Your task to perform on an android device: toggle translation in the chrome app Image 0: 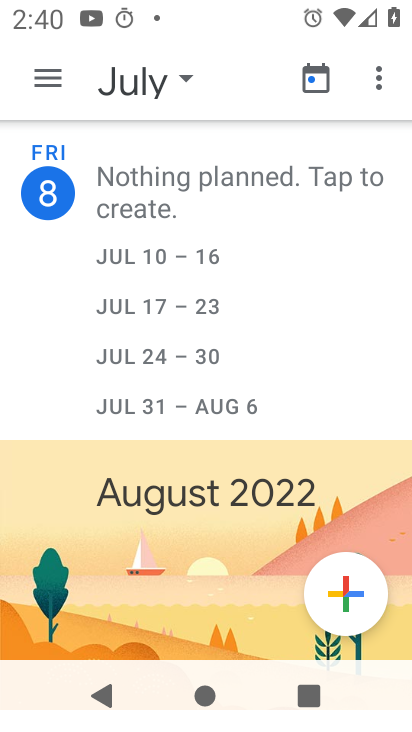
Step 0: press home button
Your task to perform on an android device: toggle translation in the chrome app Image 1: 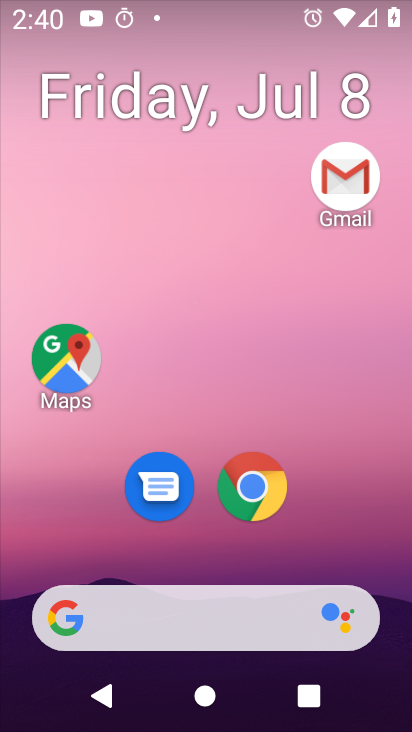
Step 1: drag from (346, 525) to (362, 140)
Your task to perform on an android device: toggle translation in the chrome app Image 2: 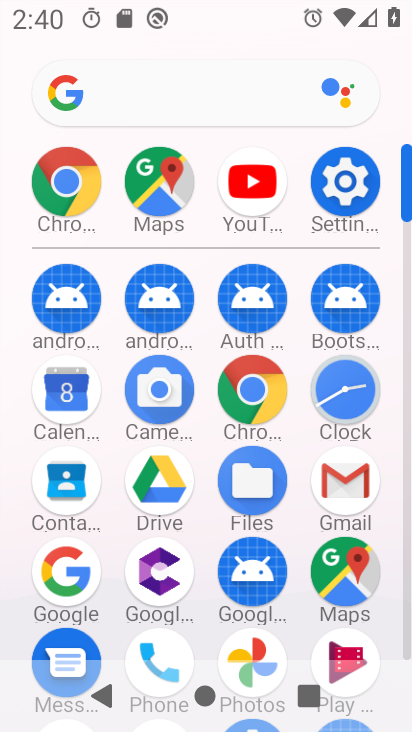
Step 2: click (267, 400)
Your task to perform on an android device: toggle translation in the chrome app Image 3: 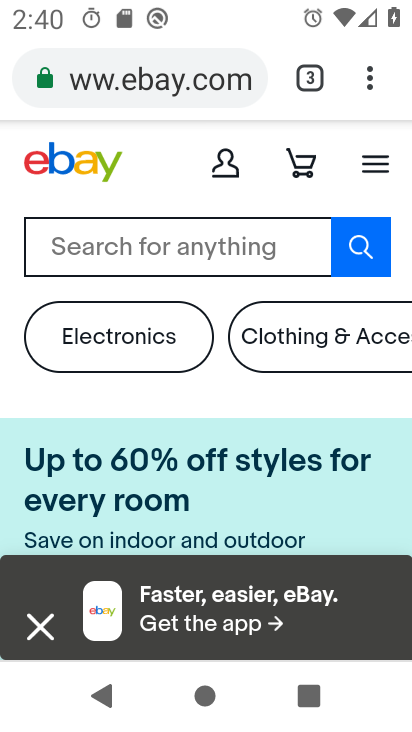
Step 3: click (369, 76)
Your task to perform on an android device: toggle translation in the chrome app Image 4: 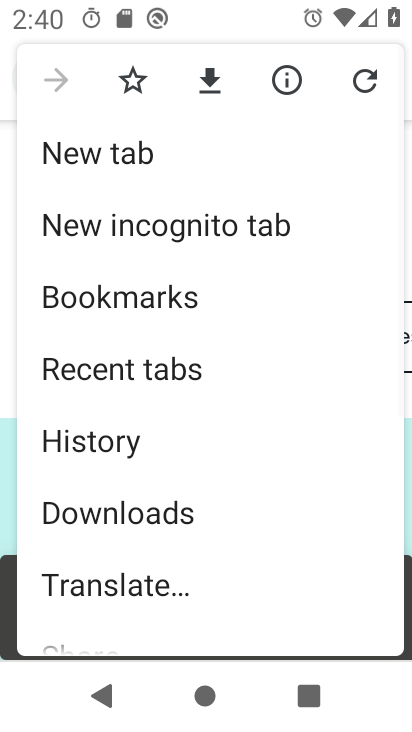
Step 4: drag from (326, 445) to (340, 301)
Your task to perform on an android device: toggle translation in the chrome app Image 5: 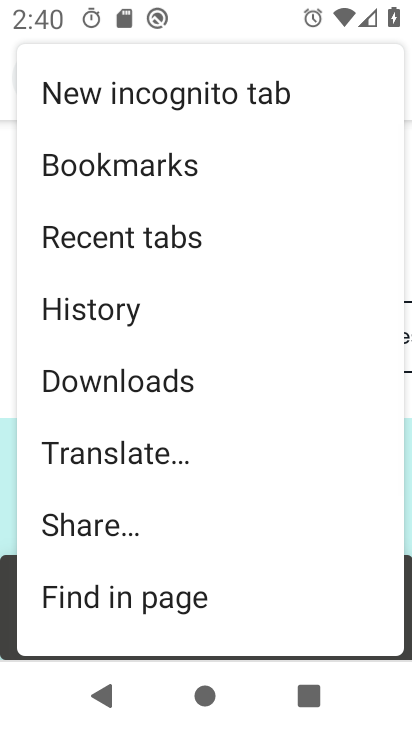
Step 5: drag from (327, 482) to (327, 338)
Your task to perform on an android device: toggle translation in the chrome app Image 6: 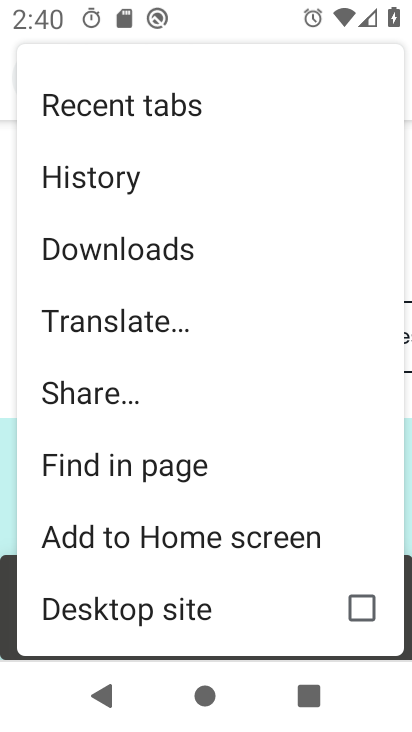
Step 6: drag from (308, 443) to (323, 275)
Your task to perform on an android device: toggle translation in the chrome app Image 7: 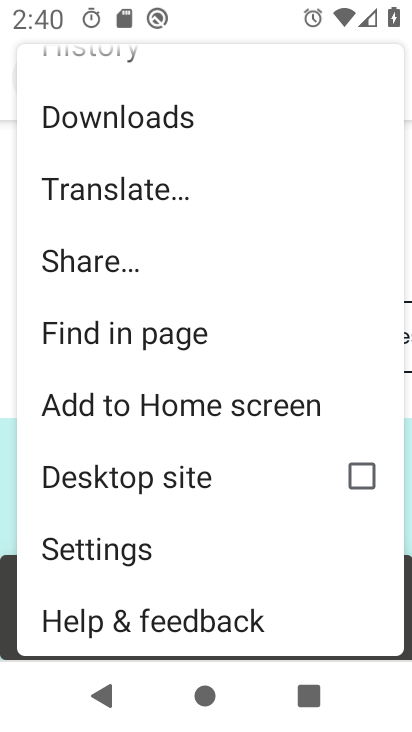
Step 7: drag from (285, 482) to (289, 304)
Your task to perform on an android device: toggle translation in the chrome app Image 8: 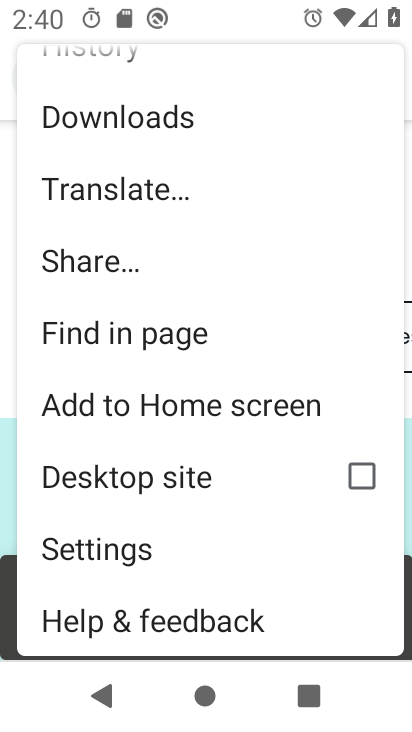
Step 8: click (161, 542)
Your task to perform on an android device: toggle translation in the chrome app Image 9: 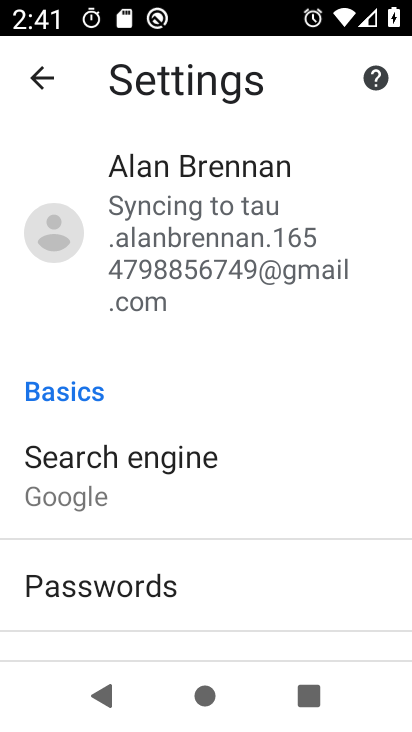
Step 9: drag from (303, 538) to (319, 398)
Your task to perform on an android device: toggle translation in the chrome app Image 10: 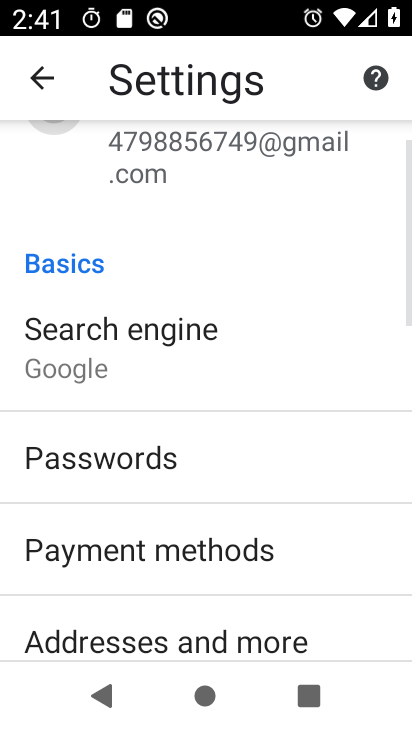
Step 10: drag from (353, 576) to (369, 430)
Your task to perform on an android device: toggle translation in the chrome app Image 11: 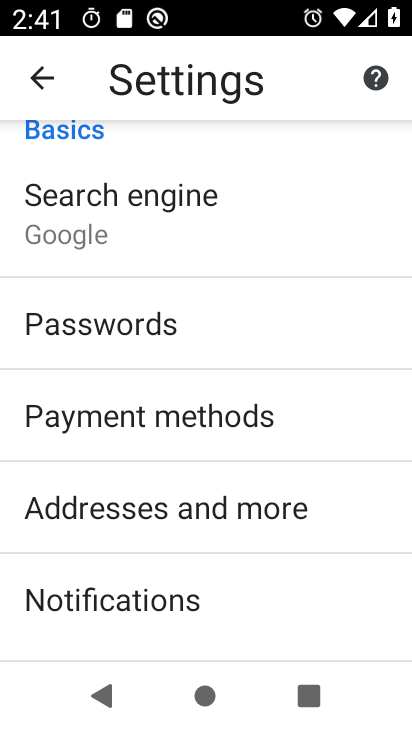
Step 11: drag from (358, 563) to (359, 429)
Your task to perform on an android device: toggle translation in the chrome app Image 12: 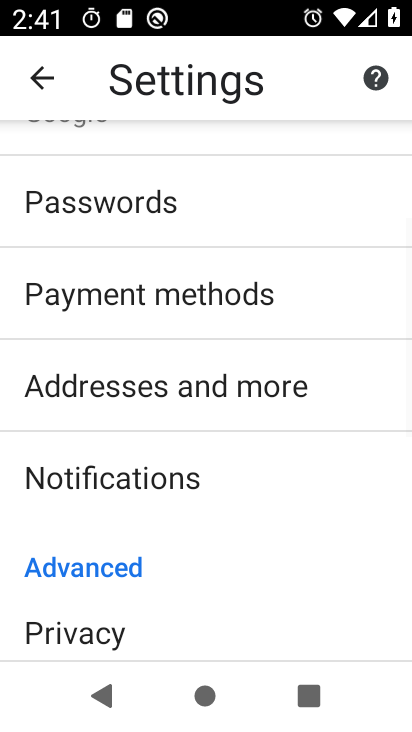
Step 12: drag from (334, 554) to (360, 409)
Your task to perform on an android device: toggle translation in the chrome app Image 13: 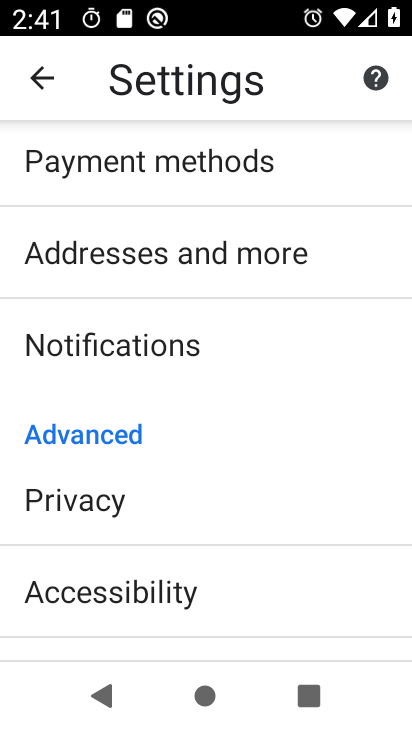
Step 13: drag from (328, 571) to (325, 420)
Your task to perform on an android device: toggle translation in the chrome app Image 14: 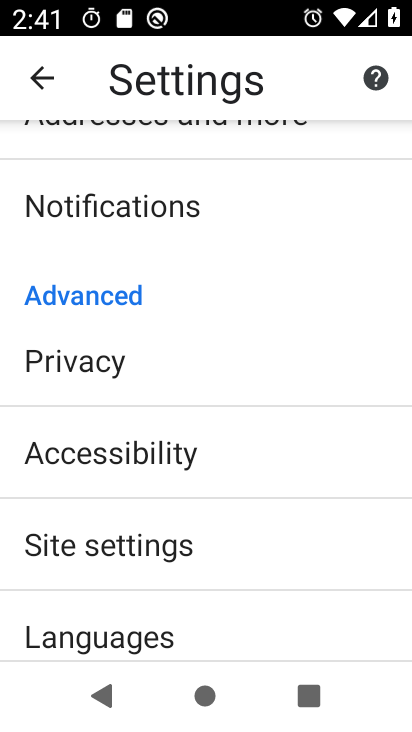
Step 14: drag from (319, 552) to (330, 411)
Your task to perform on an android device: toggle translation in the chrome app Image 15: 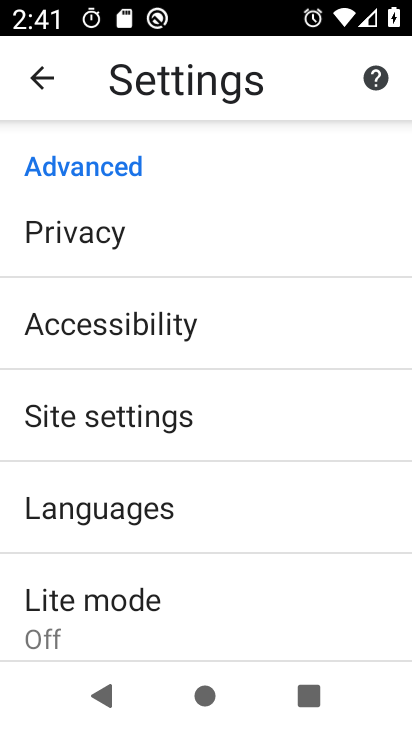
Step 15: drag from (332, 532) to (320, 379)
Your task to perform on an android device: toggle translation in the chrome app Image 16: 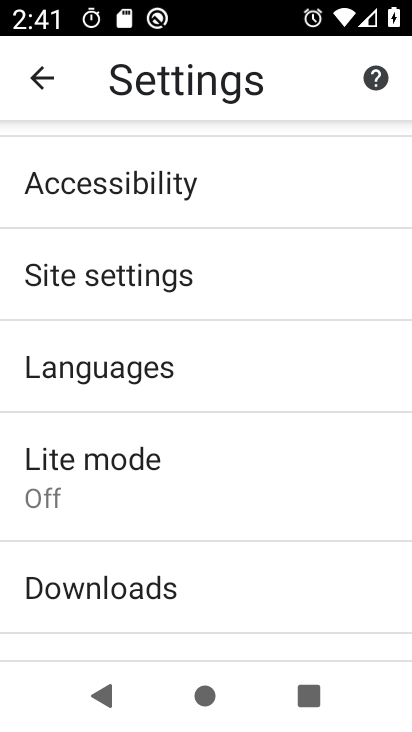
Step 16: drag from (294, 505) to (282, 332)
Your task to perform on an android device: toggle translation in the chrome app Image 17: 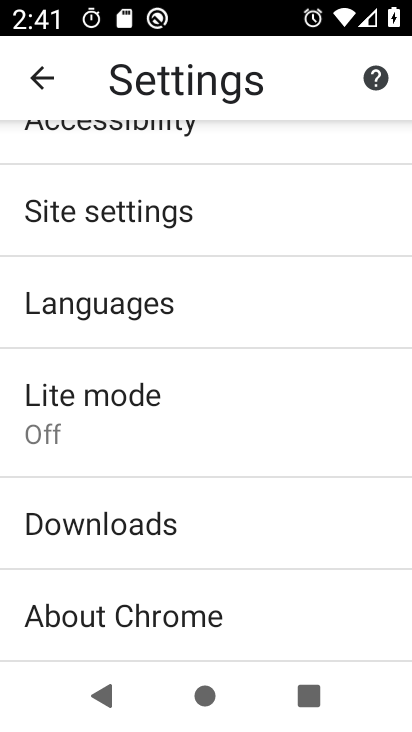
Step 17: click (204, 313)
Your task to perform on an android device: toggle translation in the chrome app Image 18: 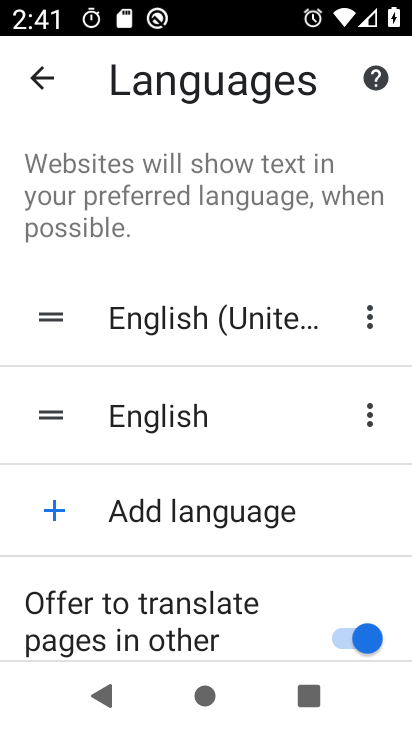
Step 18: drag from (303, 494) to (313, 398)
Your task to perform on an android device: toggle translation in the chrome app Image 19: 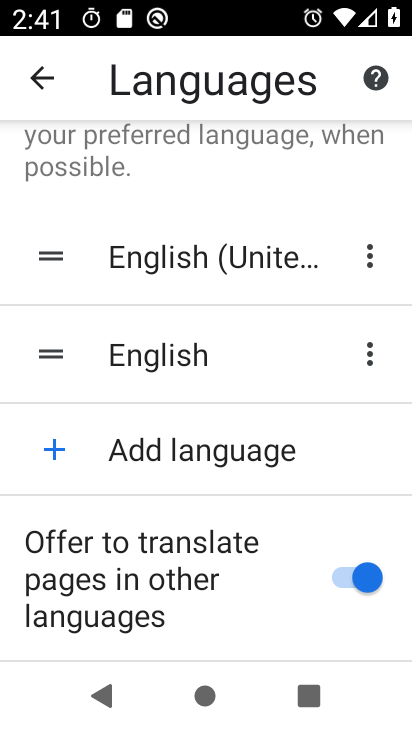
Step 19: click (349, 584)
Your task to perform on an android device: toggle translation in the chrome app Image 20: 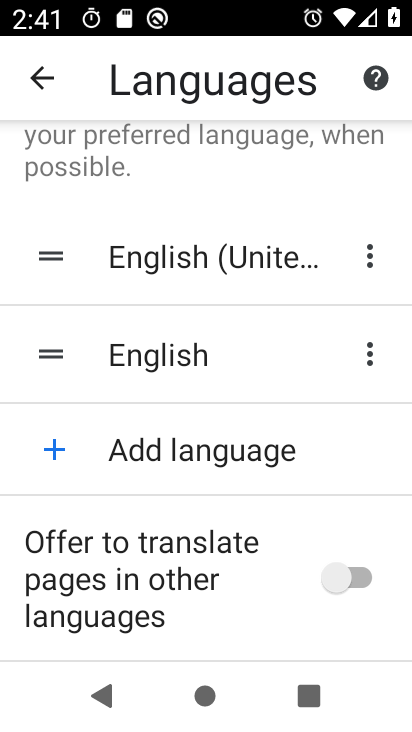
Step 20: task complete